Your task to perform on an android device: change notification settings in the gmail app Image 0: 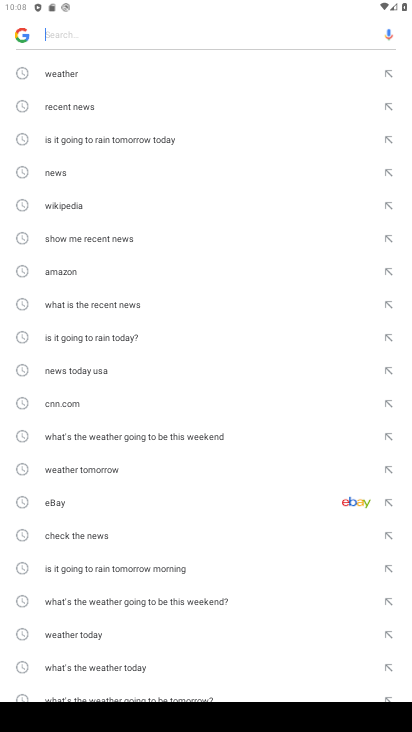
Step 0: press home button
Your task to perform on an android device: change notification settings in the gmail app Image 1: 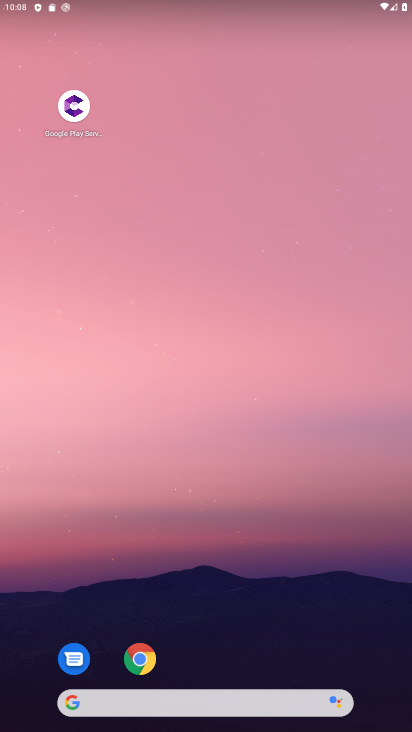
Step 1: drag from (187, 642) to (187, 67)
Your task to perform on an android device: change notification settings in the gmail app Image 2: 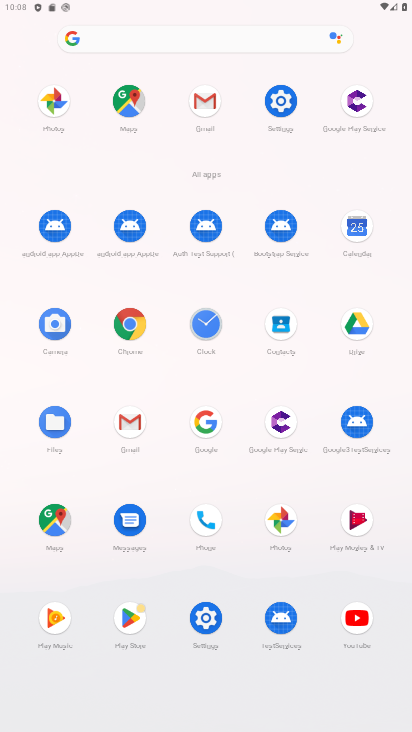
Step 2: click (139, 421)
Your task to perform on an android device: change notification settings in the gmail app Image 3: 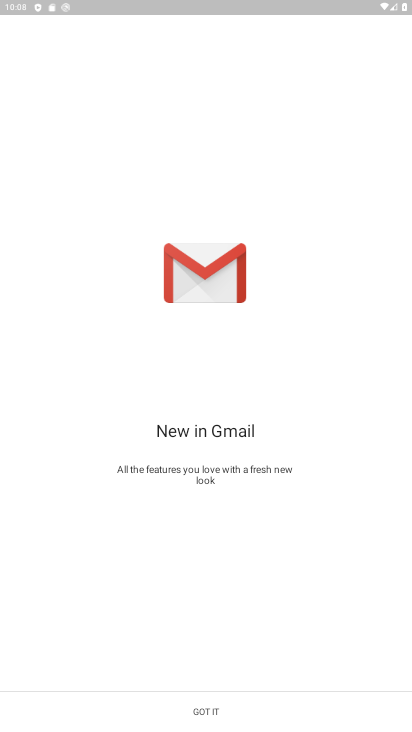
Step 3: click (209, 703)
Your task to perform on an android device: change notification settings in the gmail app Image 4: 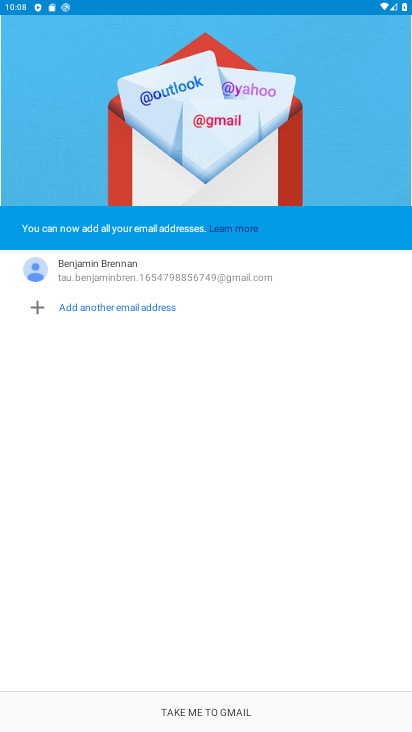
Step 4: click (232, 717)
Your task to perform on an android device: change notification settings in the gmail app Image 5: 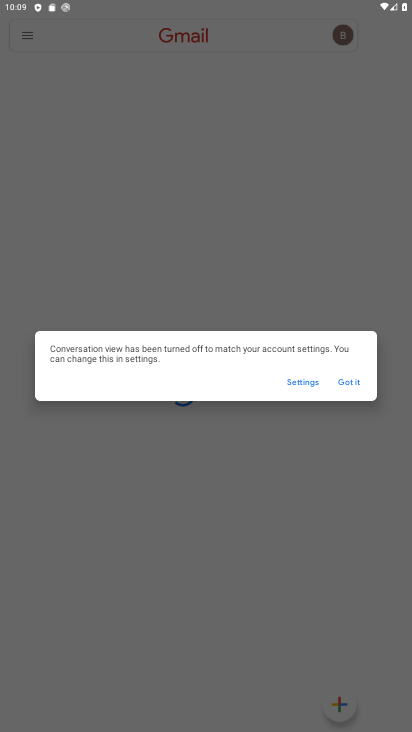
Step 5: click (303, 383)
Your task to perform on an android device: change notification settings in the gmail app Image 6: 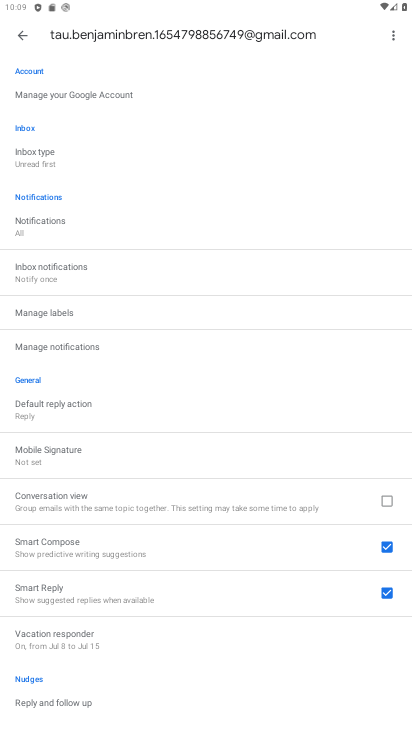
Step 6: click (54, 148)
Your task to perform on an android device: change notification settings in the gmail app Image 7: 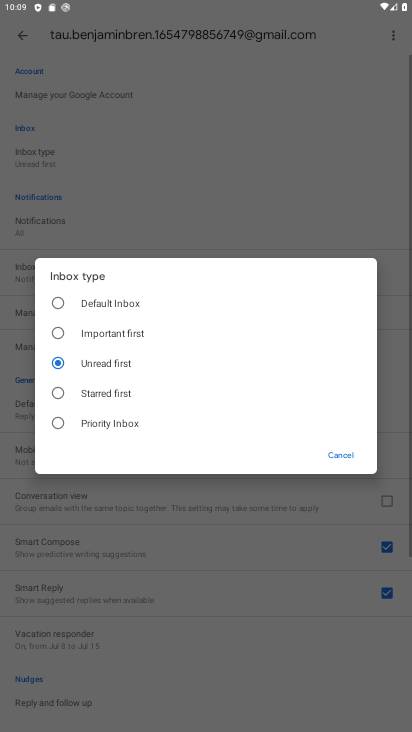
Step 7: click (24, 32)
Your task to perform on an android device: change notification settings in the gmail app Image 8: 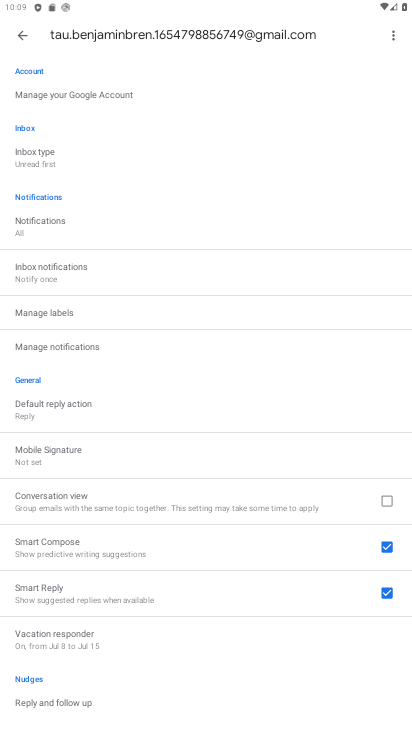
Step 8: click (25, 33)
Your task to perform on an android device: change notification settings in the gmail app Image 9: 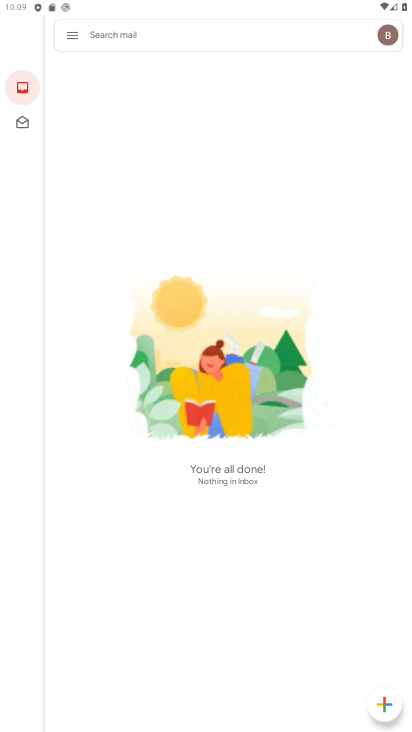
Step 9: click (64, 35)
Your task to perform on an android device: change notification settings in the gmail app Image 10: 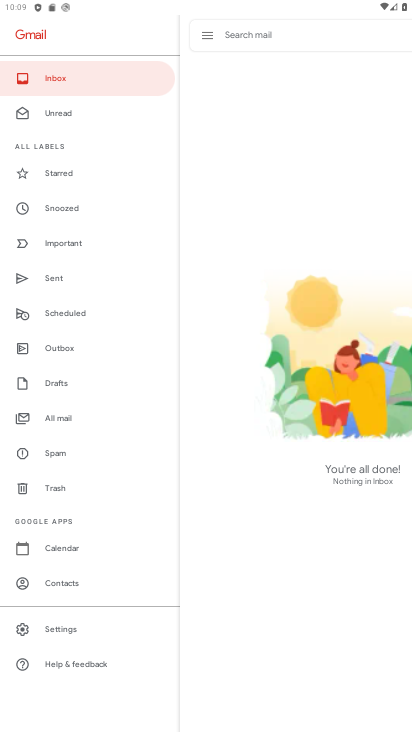
Step 10: click (77, 630)
Your task to perform on an android device: change notification settings in the gmail app Image 11: 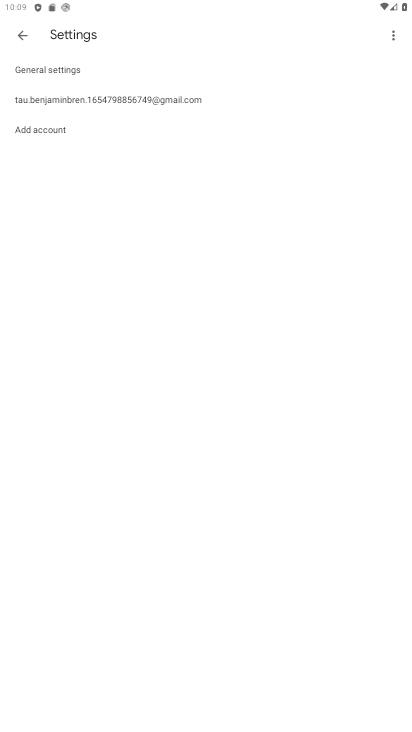
Step 11: click (81, 72)
Your task to perform on an android device: change notification settings in the gmail app Image 12: 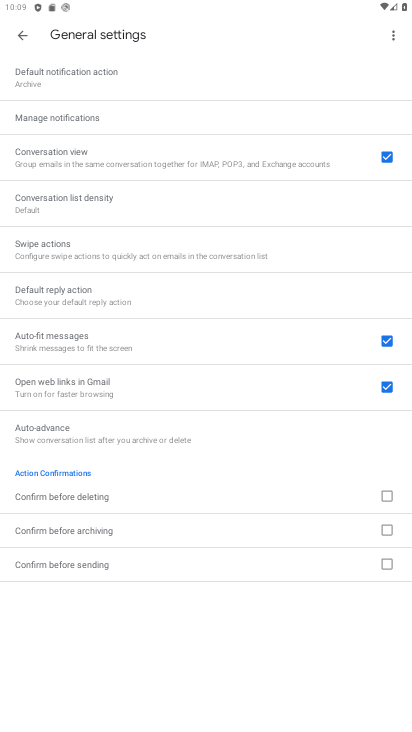
Step 12: click (28, 116)
Your task to perform on an android device: change notification settings in the gmail app Image 13: 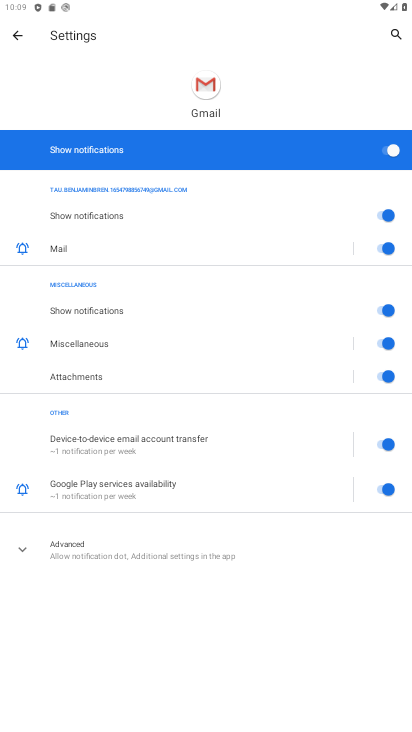
Step 13: click (352, 153)
Your task to perform on an android device: change notification settings in the gmail app Image 14: 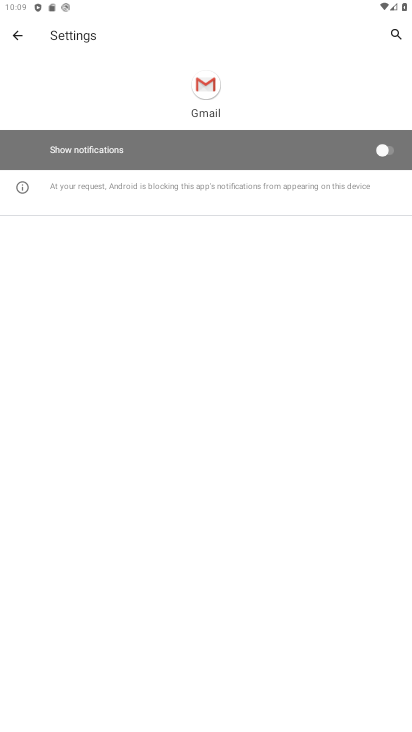
Step 14: task complete